Your task to perform on an android device: Clear the cart on amazon.com. Add "panasonic triple a" to the cart on amazon.com Image 0: 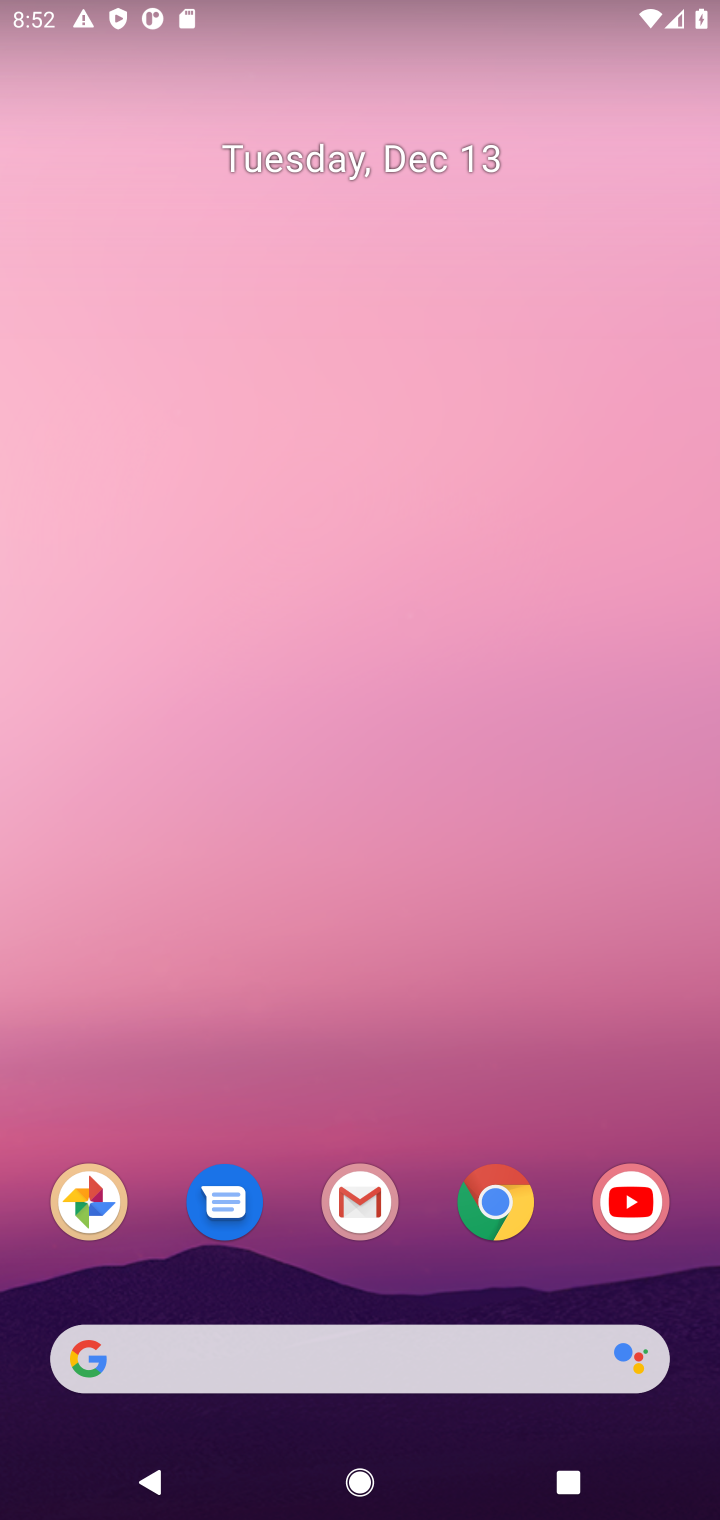
Step 0: click (491, 1213)
Your task to perform on an android device: Clear the cart on amazon.com. Add "panasonic triple a" to the cart on amazon.com Image 1: 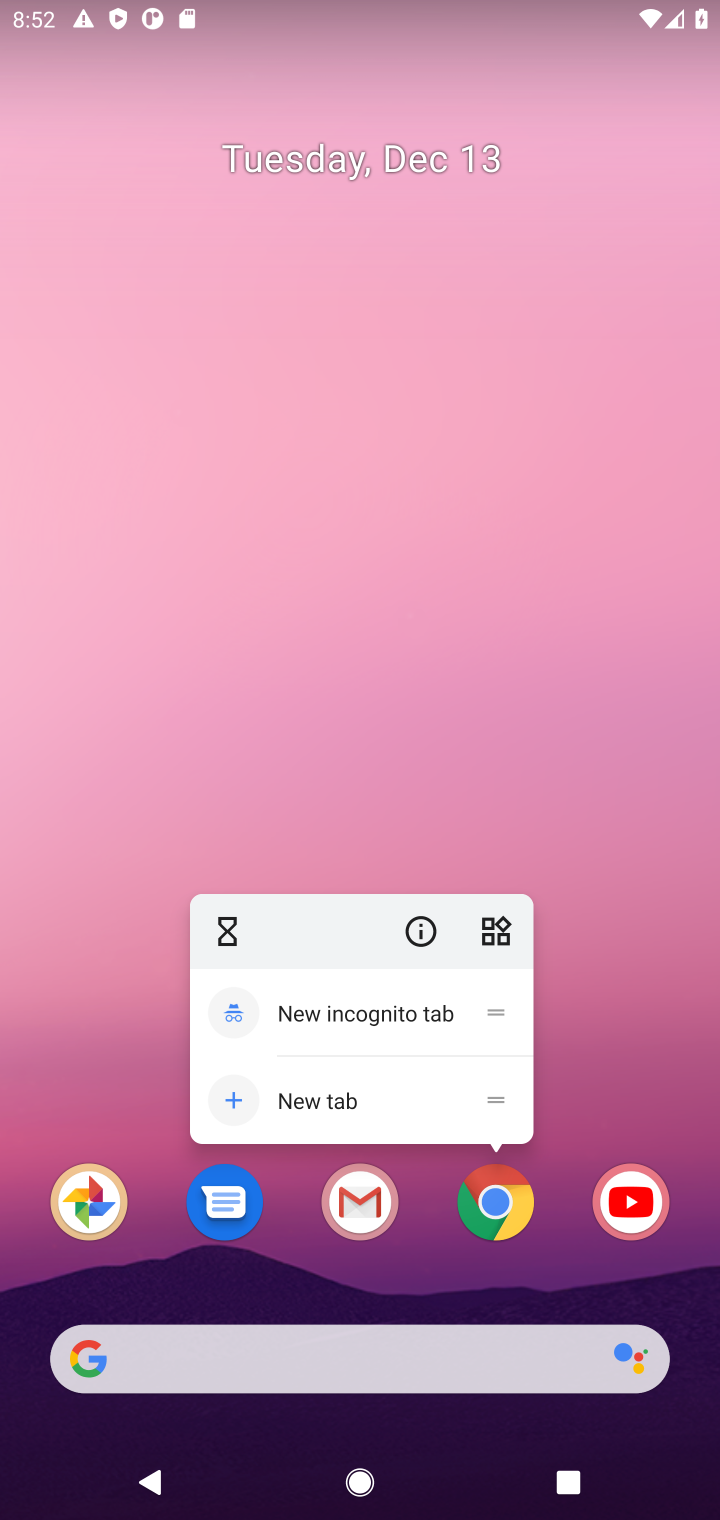
Step 1: click (505, 1218)
Your task to perform on an android device: Clear the cart on amazon.com. Add "panasonic triple a" to the cart on amazon.com Image 2: 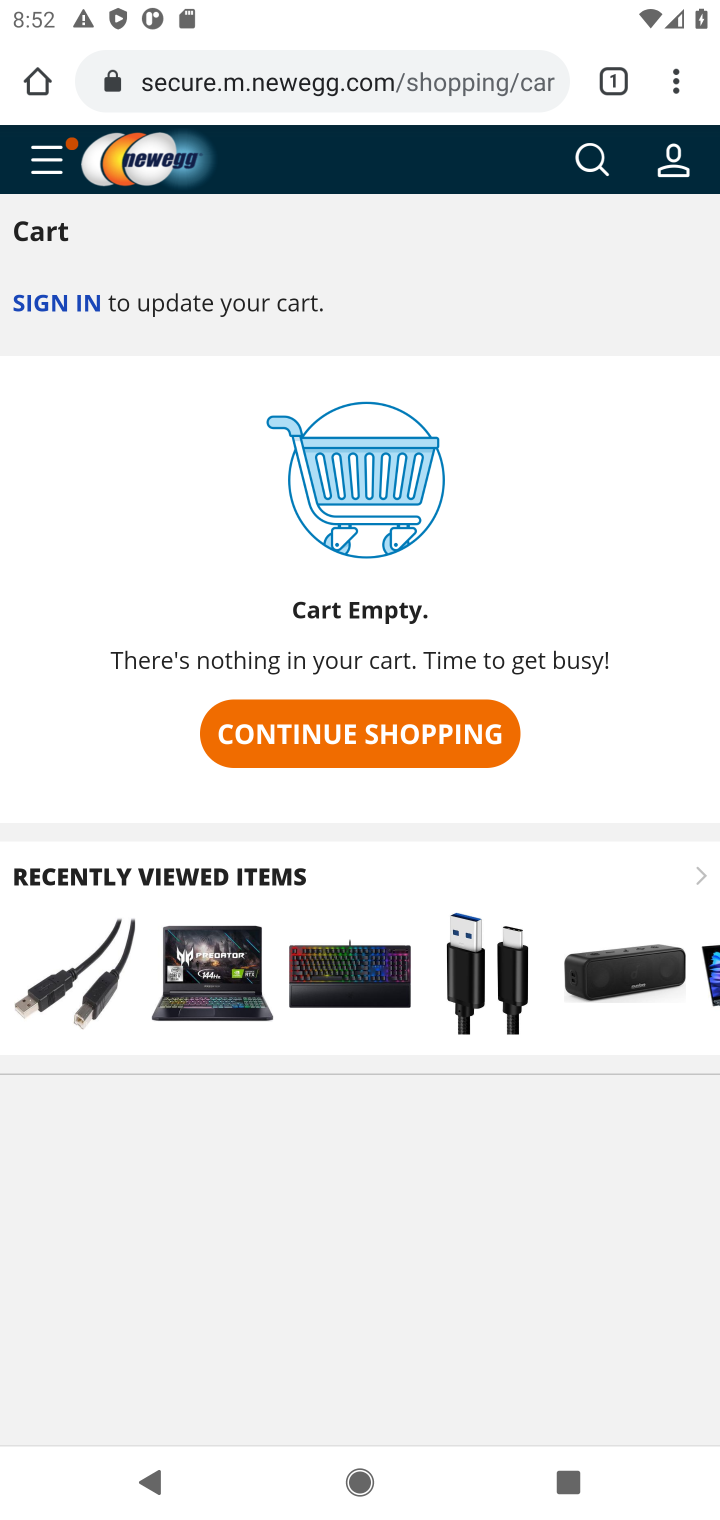
Step 2: click (284, 98)
Your task to perform on an android device: Clear the cart on amazon.com. Add "panasonic triple a" to the cart on amazon.com Image 3: 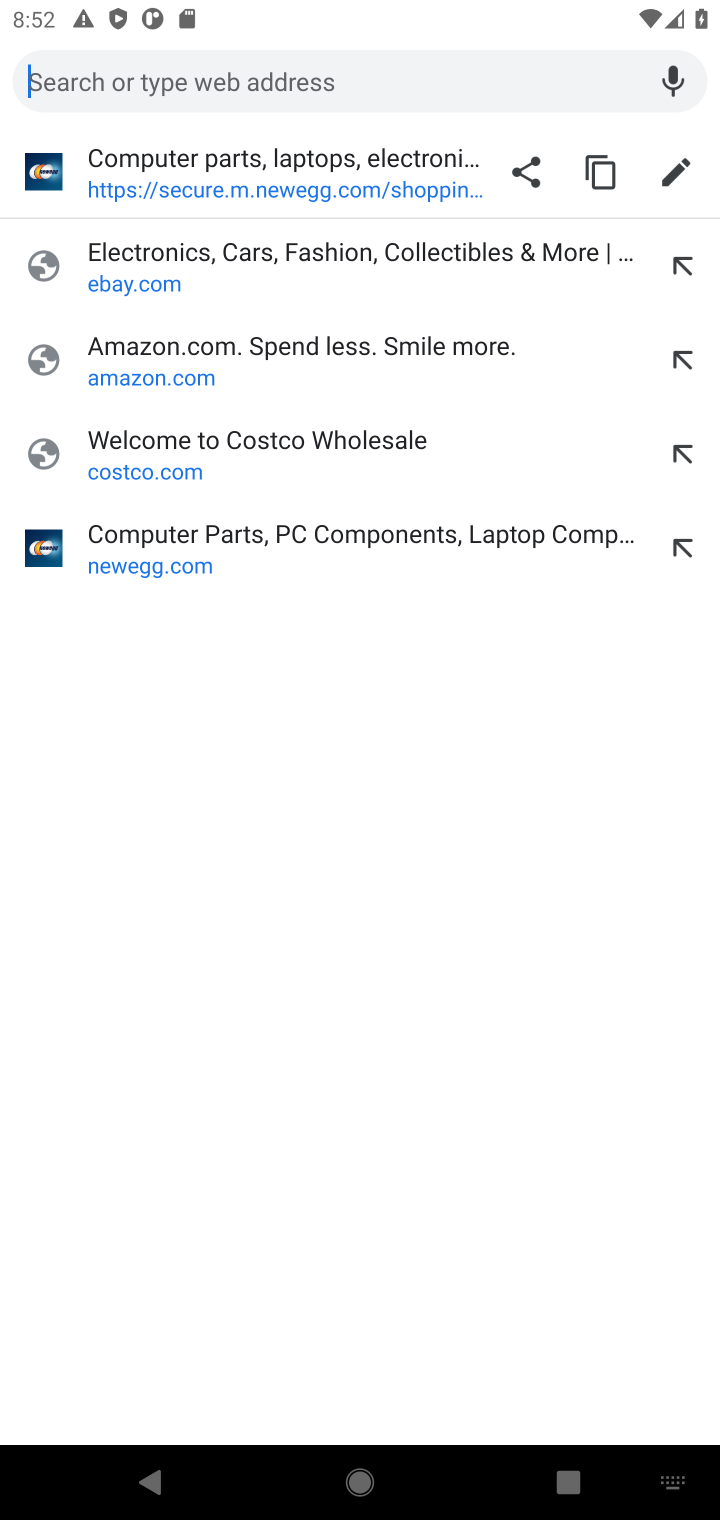
Step 3: click (169, 370)
Your task to perform on an android device: Clear the cart on amazon.com. Add "panasonic triple a" to the cart on amazon.com Image 4: 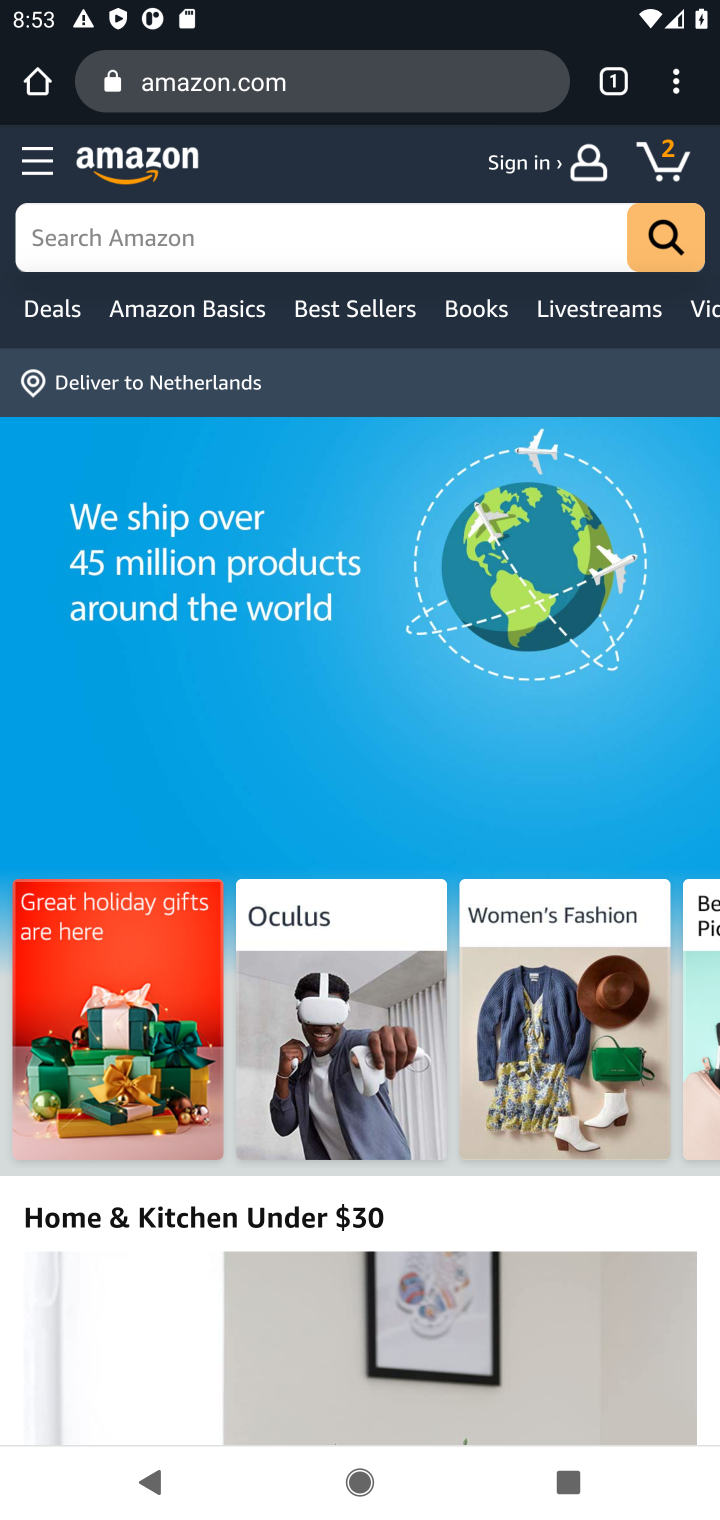
Step 4: click (665, 161)
Your task to perform on an android device: Clear the cart on amazon.com. Add "panasonic triple a" to the cart on amazon.com Image 5: 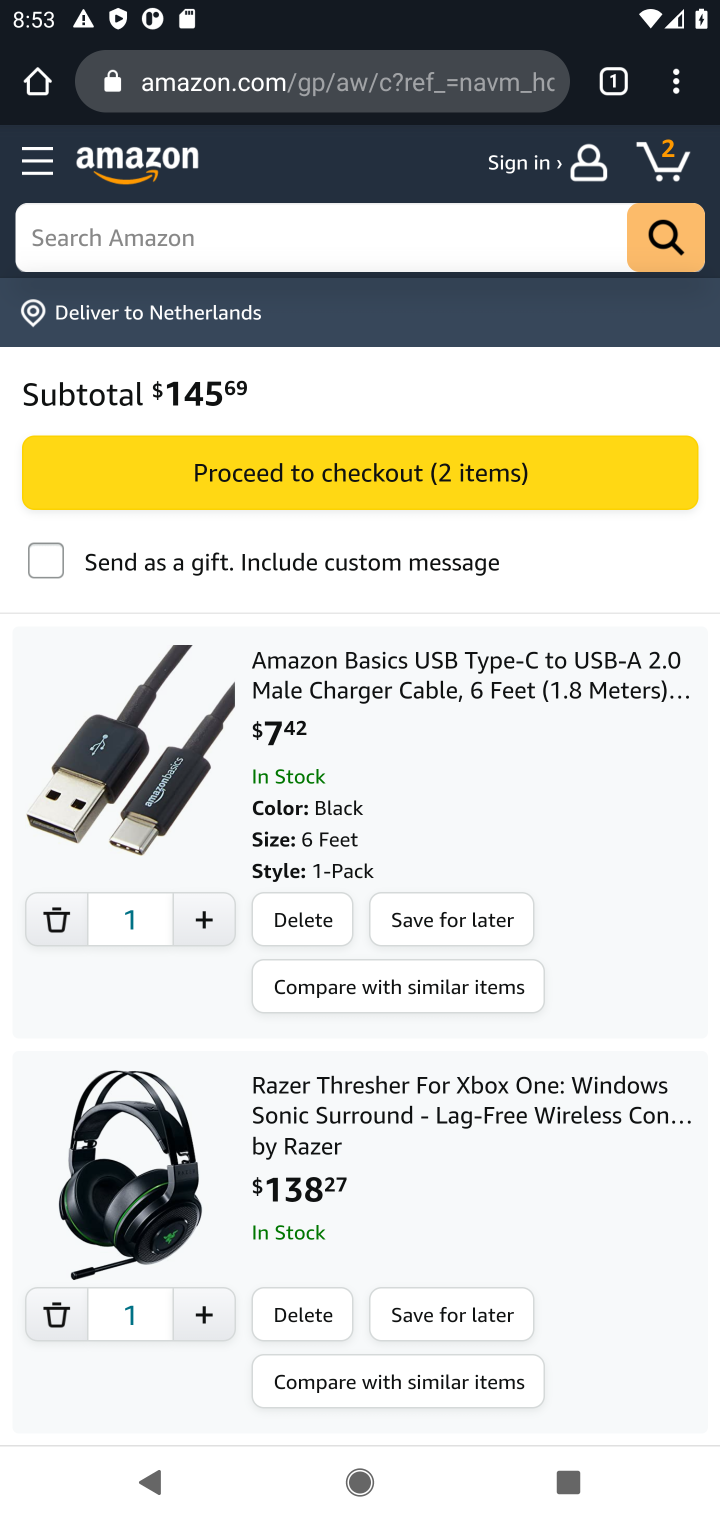
Step 5: click (304, 919)
Your task to perform on an android device: Clear the cart on amazon.com. Add "panasonic triple a" to the cart on amazon.com Image 6: 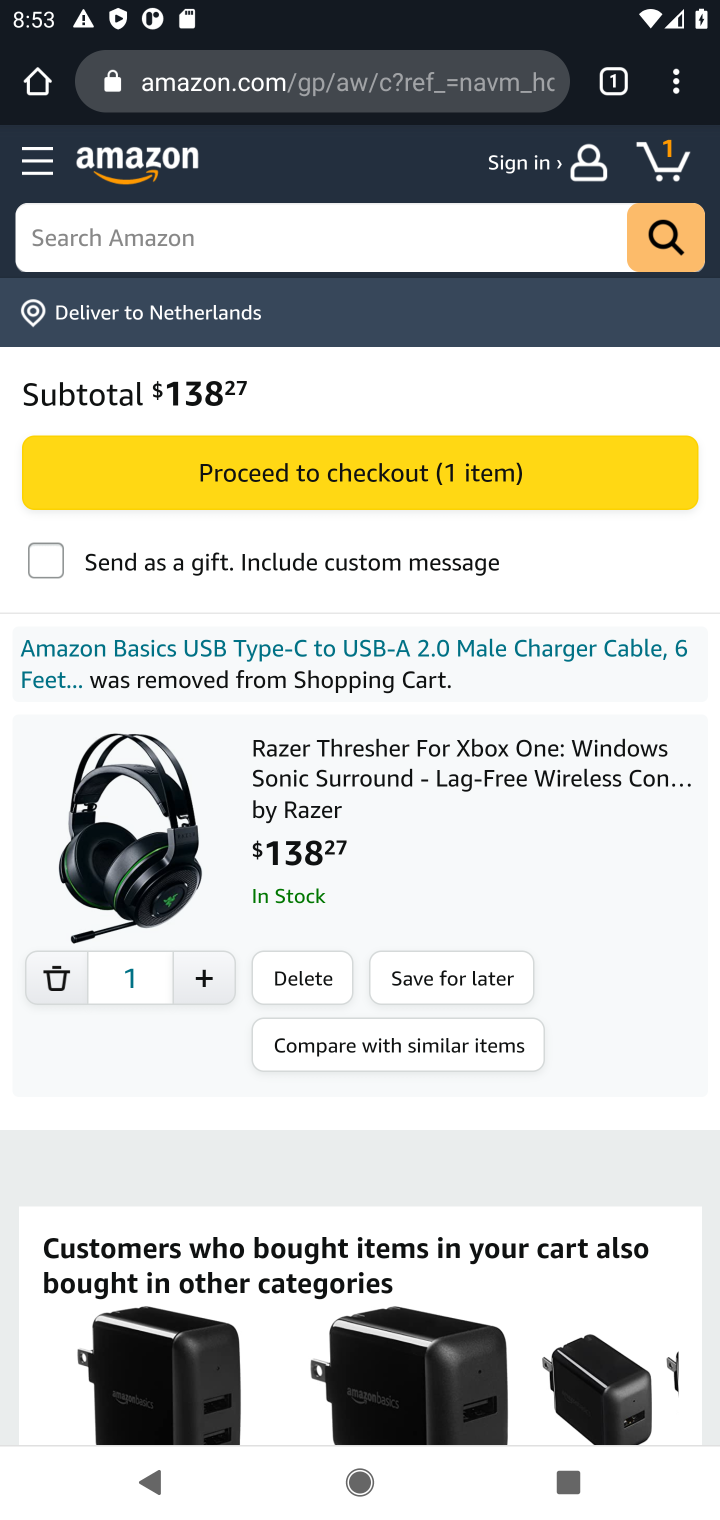
Step 6: click (299, 983)
Your task to perform on an android device: Clear the cart on amazon.com. Add "panasonic triple a" to the cart on amazon.com Image 7: 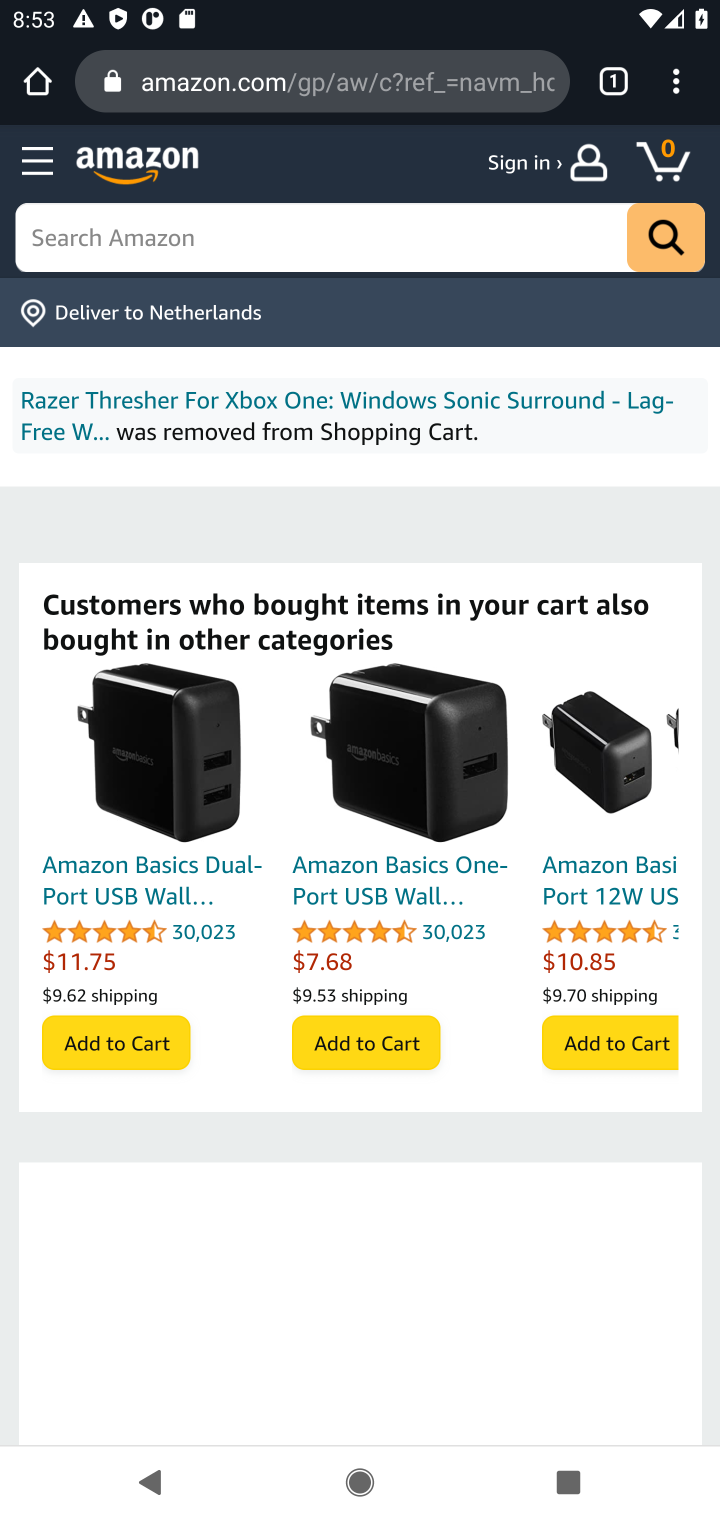
Step 7: click (160, 244)
Your task to perform on an android device: Clear the cart on amazon.com. Add "panasonic triple a" to the cart on amazon.com Image 8: 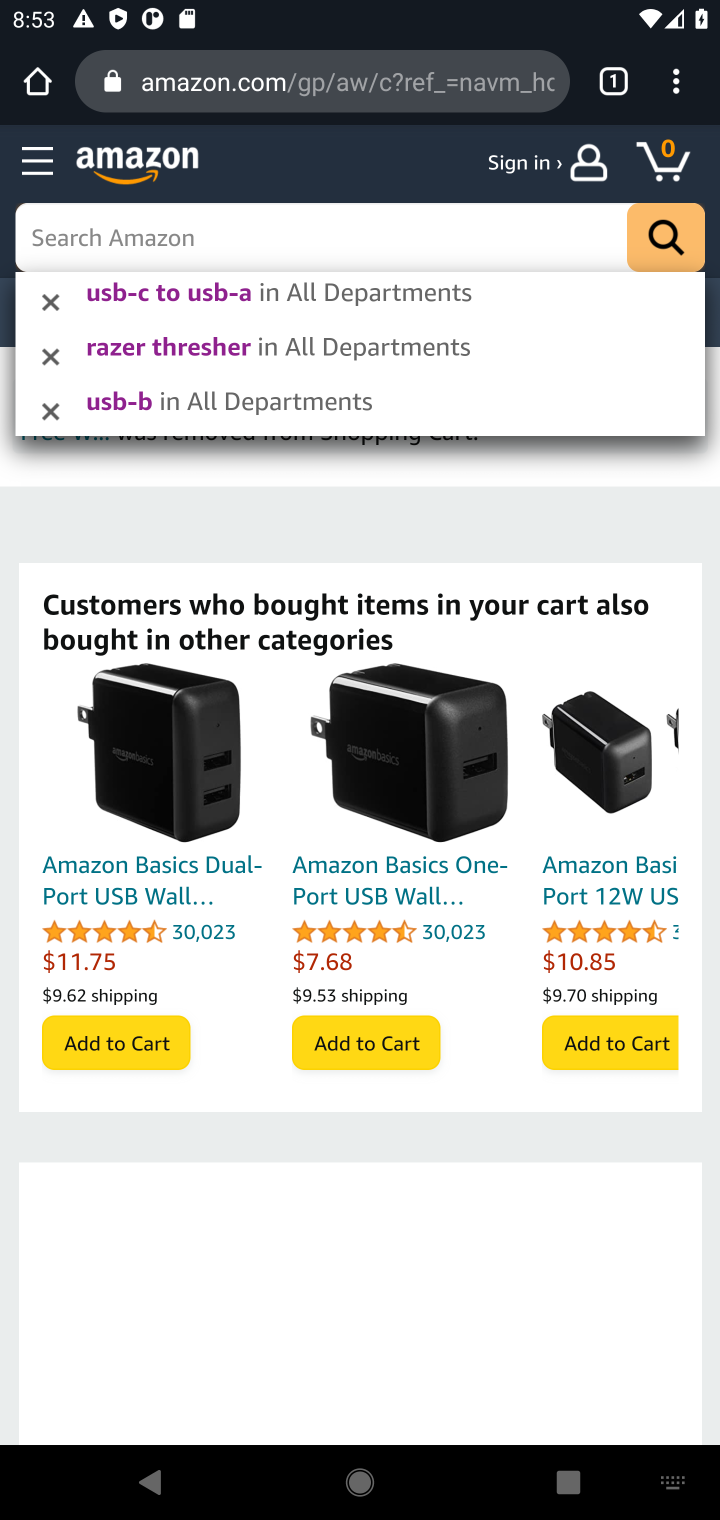
Step 8: type "panasonic triple a"
Your task to perform on an android device: Clear the cart on amazon.com. Add "panasonic triple a" to the cart on amazon.com Image 9: 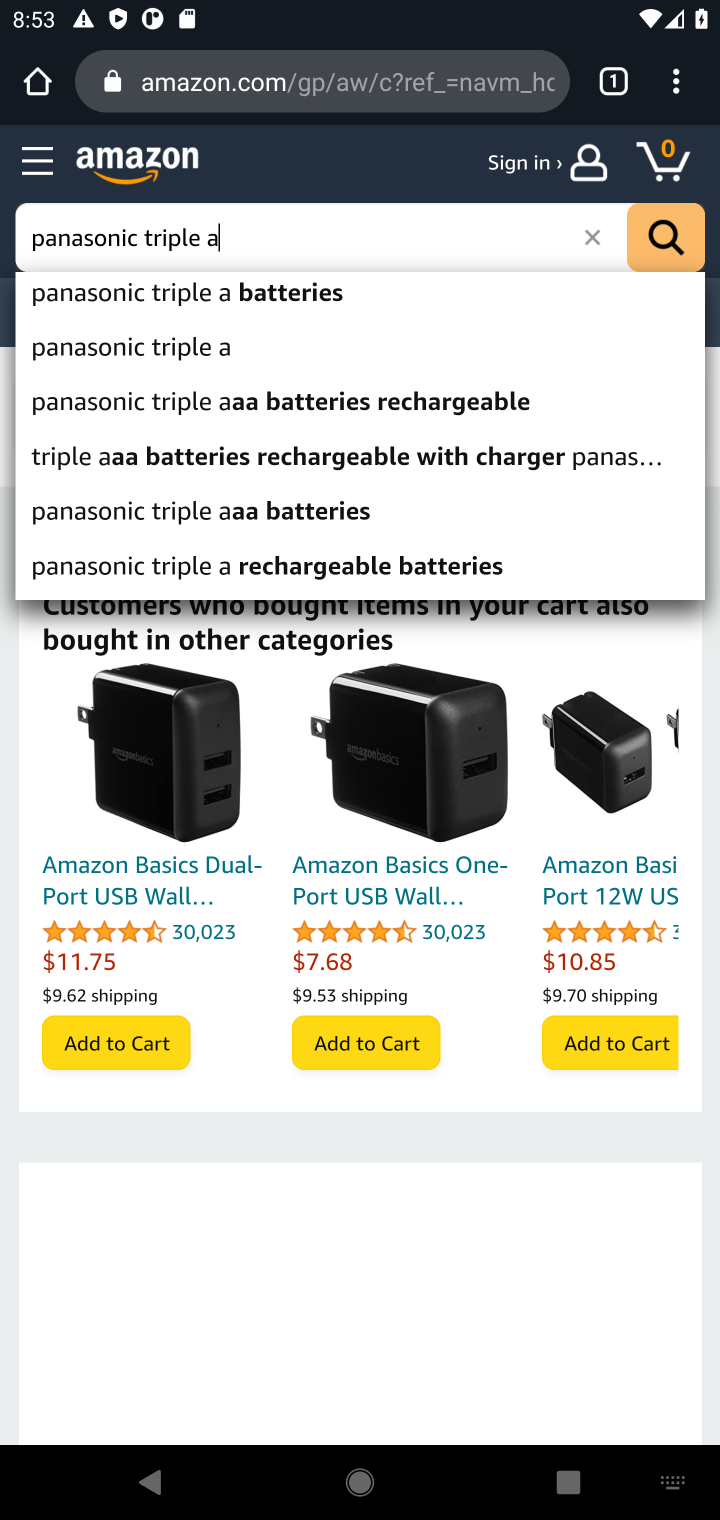
Step 9: click (182, 303)
Your task to perform on an android device: Clear the cart on amazon.com. Add "panasonic triple a" to the cart on amazon.com Image 10: 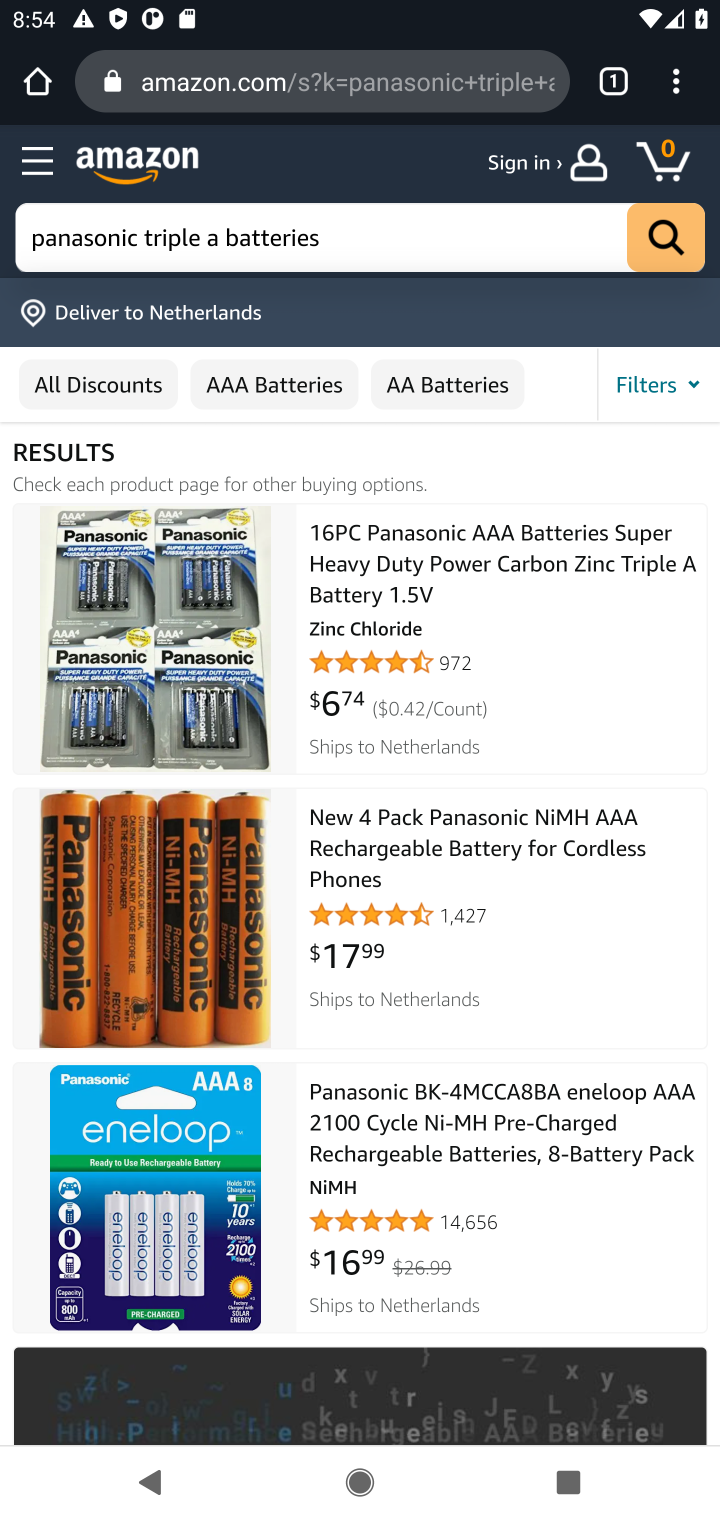
Step 10: click (338, 588)
Your task to perform on an android device: Clear the cart on amazon.com. Add "panasonic triple a" to the cart on amazon.com Image 11: 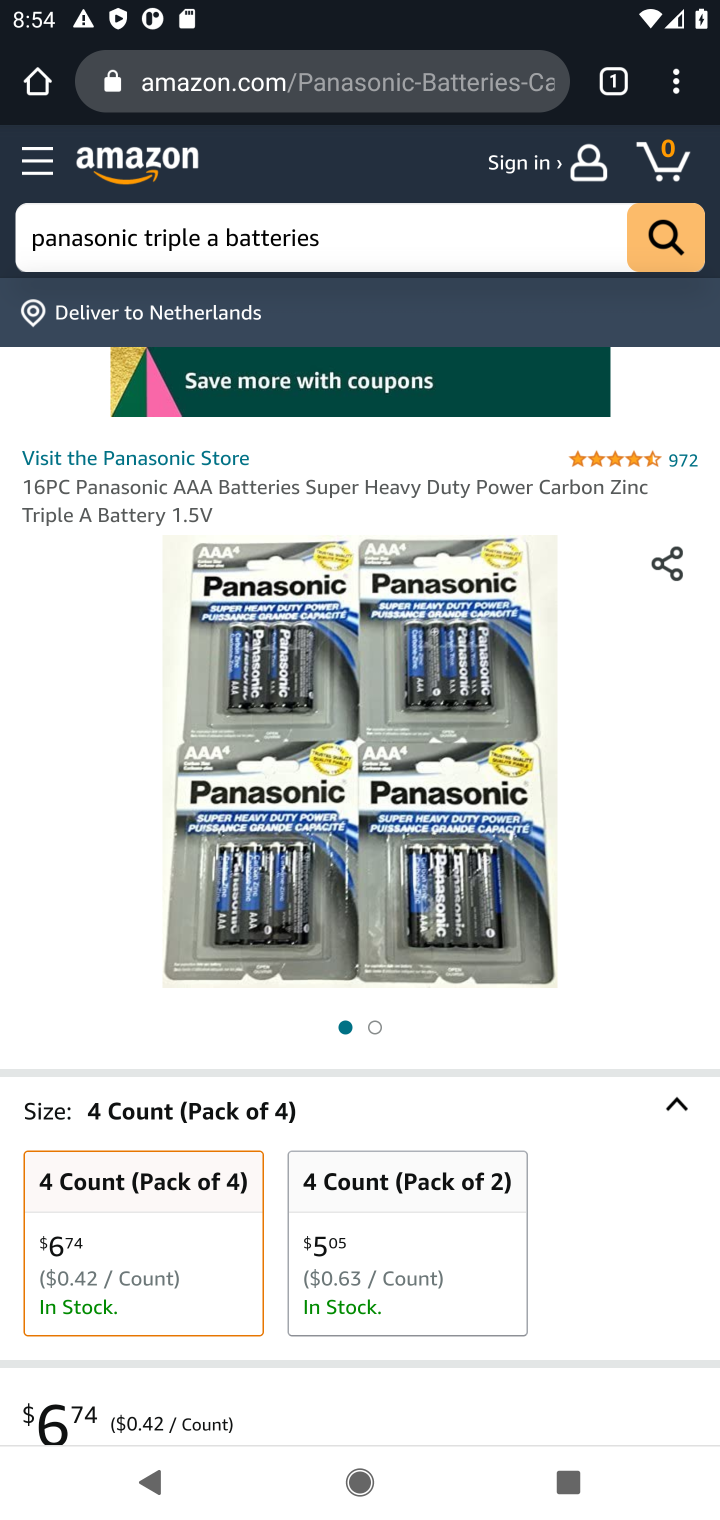
Step 11: drag from (344, 907) to (330, 566)
Your task to perform on an android device: Clear the cart on amazon.com. Add "panasonic triple a" to the cart on amazon.com Image 12: 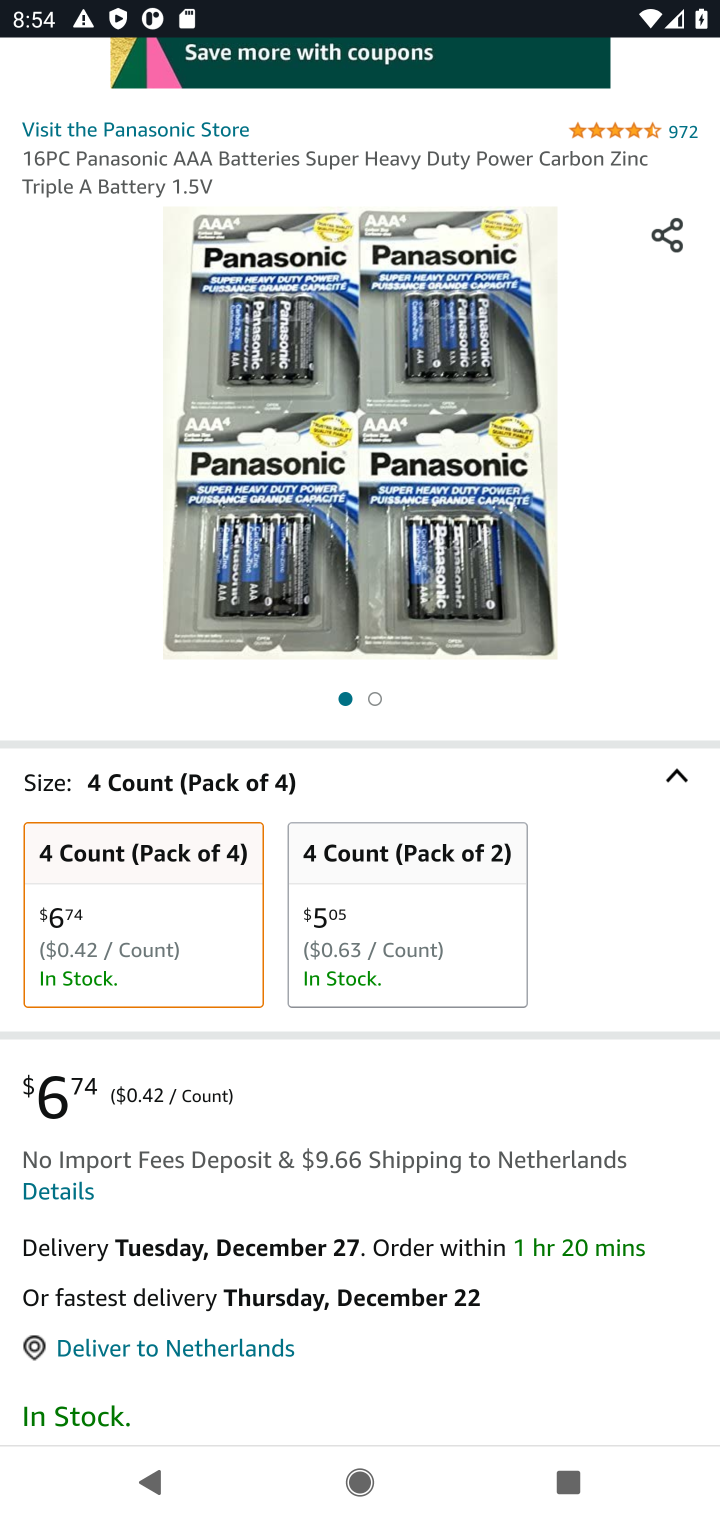
Step 12: drag from (346, 1093) to (300, 651)
Your task to perform on an android device: Clear the cart on amazon.com. Add "panasonic triple a" to the cart on amazon.com Image 13: 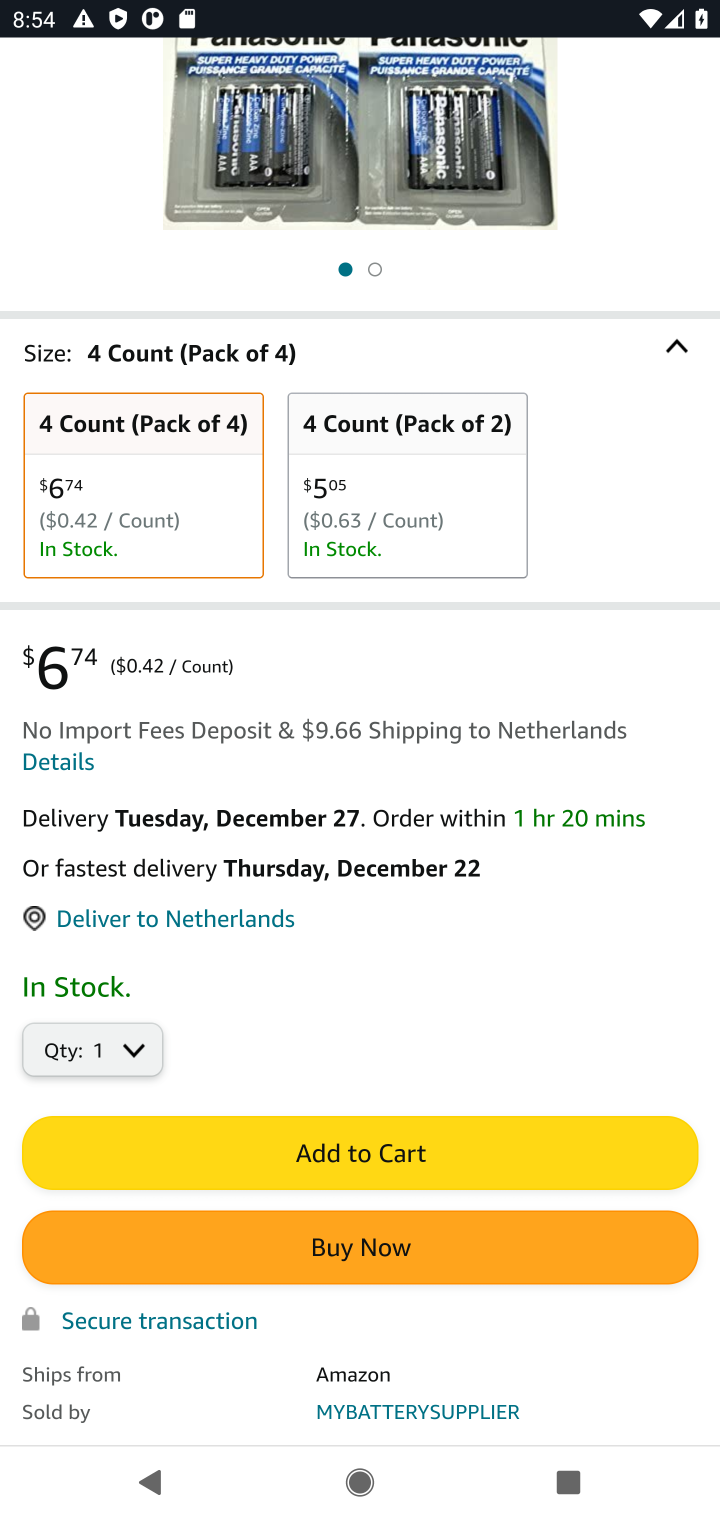
Step 13: click (322, 1136)
Your task to perform on an android device: Clear the cart on amazon.com. Add "panasonic triple a" to the cart on amazon.com Image 14: 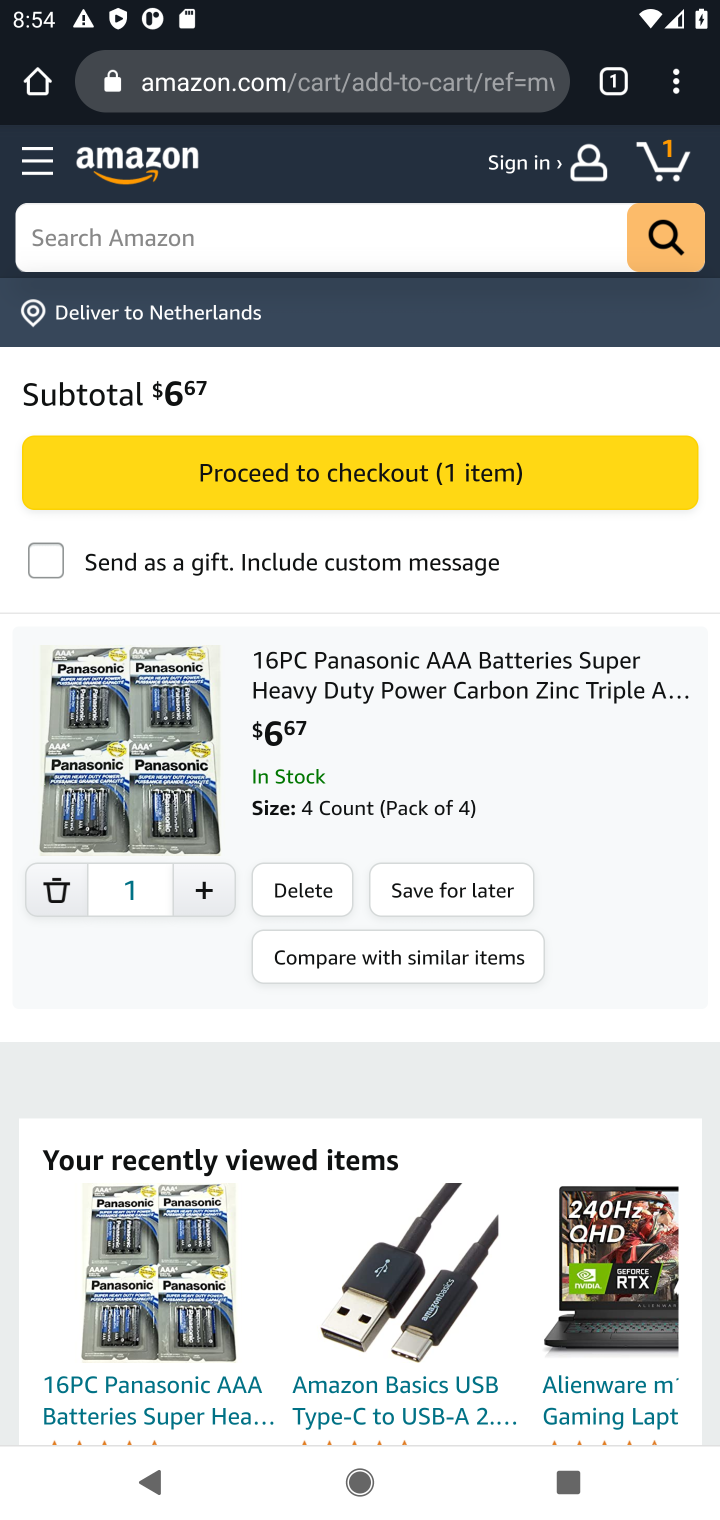
Step 14: task complete